Your task to perform on an android device: Open Wikipedia Image 0: 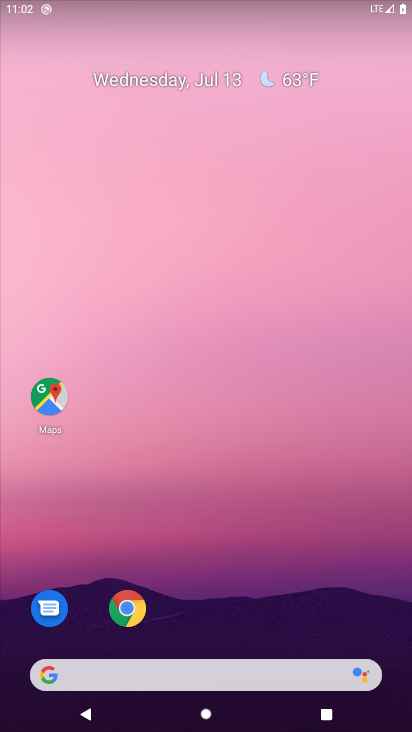
Step 0: drag from (199, 623) to (222, 127)
Your task to perform on an android device: Open Wikipedia Image 1: 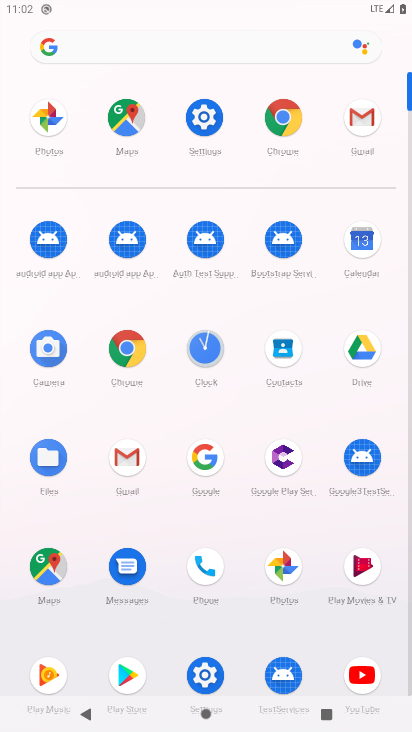
Step 1: click (129, 341)
Your task to perform on an android device: Open Wikipedia Image 2: 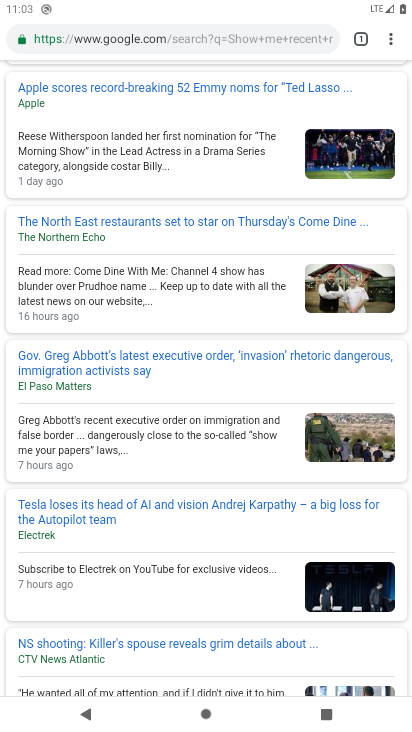
Step 2: drag from (389, 44) to (259, 87)
Your task to perform on an android device: Open Wikipedia Image 3: 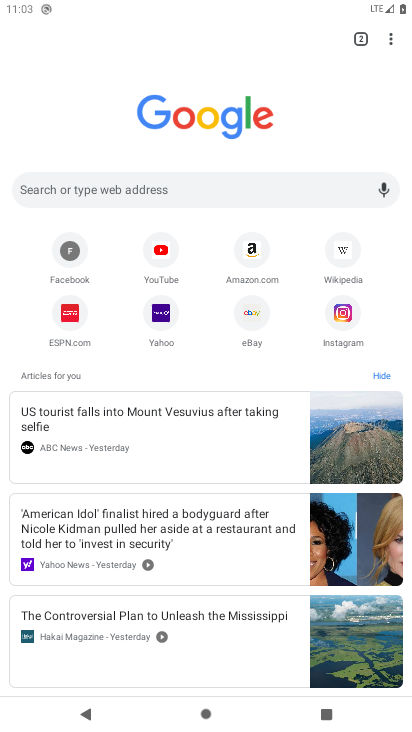
Step 3: click (353, 239)
Your task to perform on an android device: Open Wikipedia Image 4: 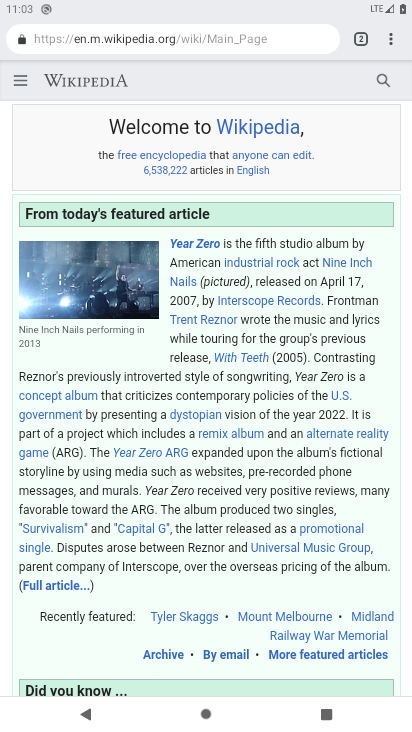
Step 4: task complete